Your task to perform on an android device: open chrome and create a bookmark for the current page Image 0: 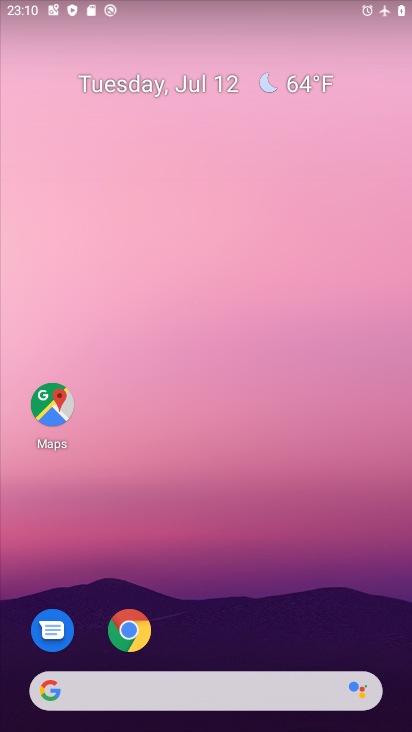
Step 0: drag from (219, 664) to (179, 139)
Your task to perform on an android device: open chrome and create a bookmark for the current page Image 1: 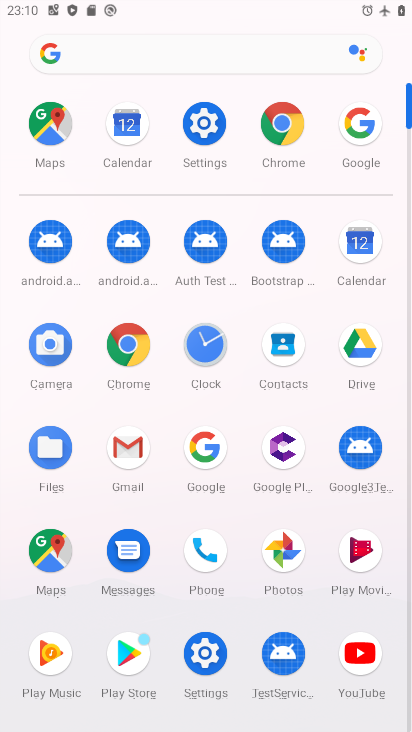
Step 1: click (122, 348)
Your task to perform on an android device: open chrome and create a bookmark for the current page Image 2: 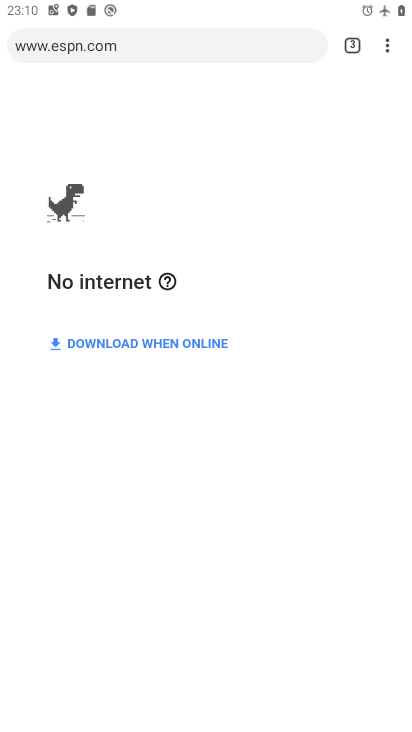
Step 2: task complete